Your task to perform on an android device: turn off javascript in the chrome app Image 0: 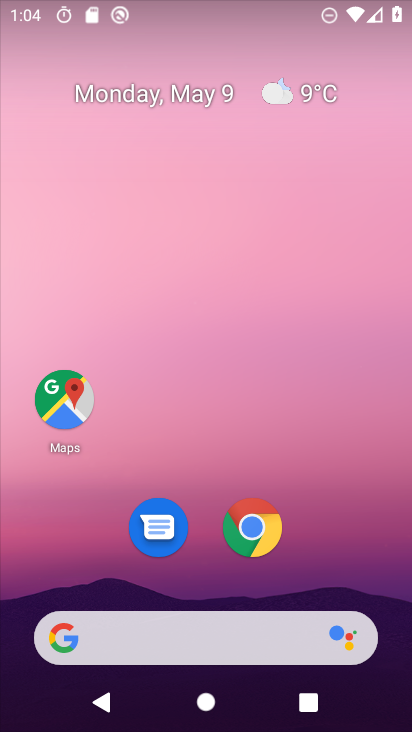
Step 0: click (245, 530)
Your task to perform on an android device: turn off javascript in the chrome app Image 1: 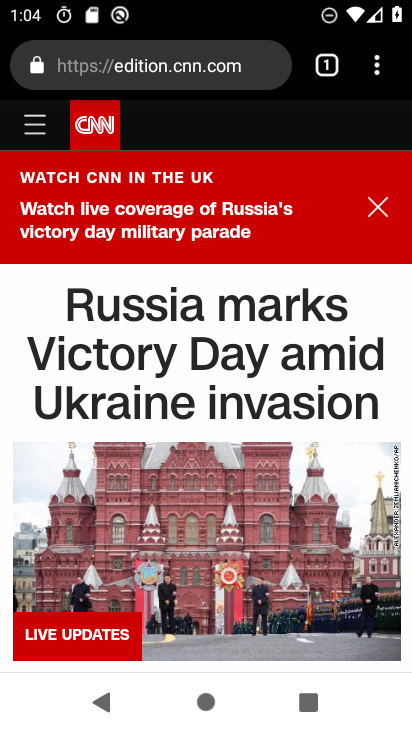
Step 1: click (381, 67)
Your task to perform on an android device: turn off javascript in the chrome app Image 2: 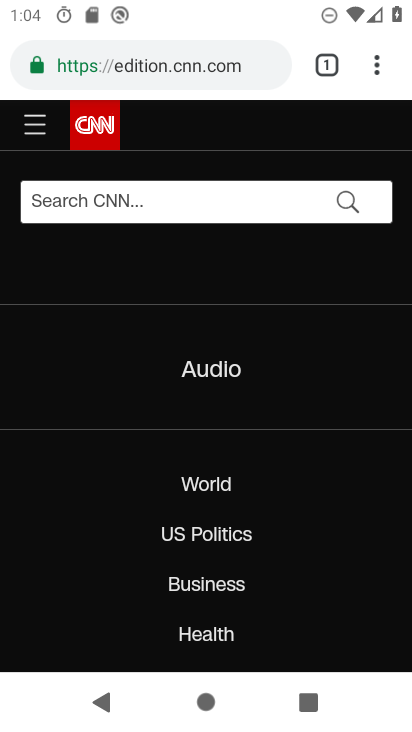
Step 2: drag from (364, 63) to (154, 583)
Your task to perform on an android device: turn off javascript in the chrome app Image 3: 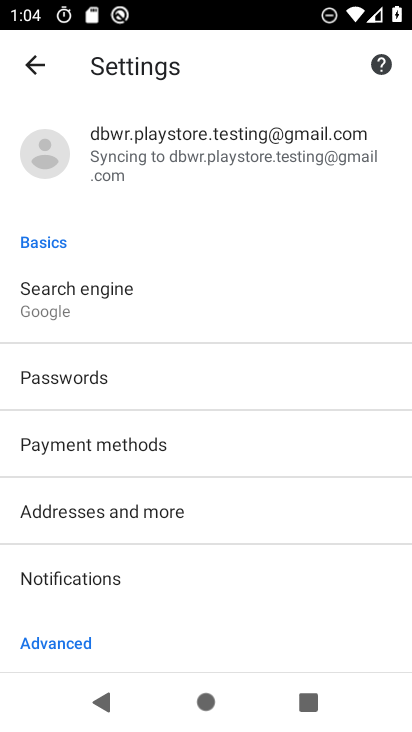
Step 3: drag from (151, 598) to (267, 123)
Your task to perform on an android device: turn off javascript in the chrome app Image 4: 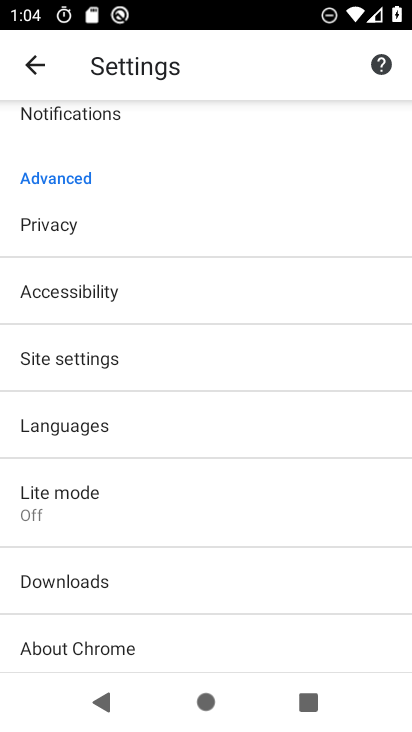
Step 4: click (75, 364)
Your task to perform on an android device: turn off javascript in the chrome app Image 5: 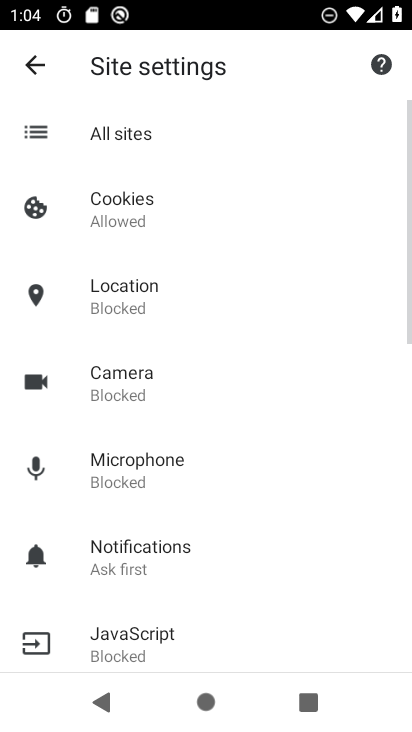
Step 5: click (115, 642)
Your task to perform on an android device: turn off javascript in the chrome app Image 6: 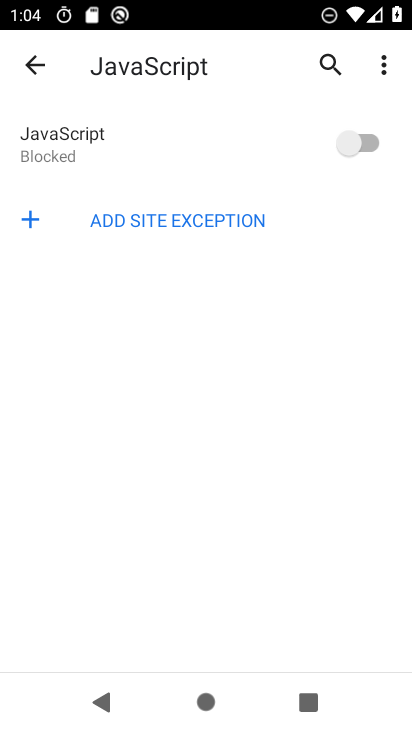
Step 6: task complete